Your task to perform on an android device: turn off notifications in google photos Image 0: 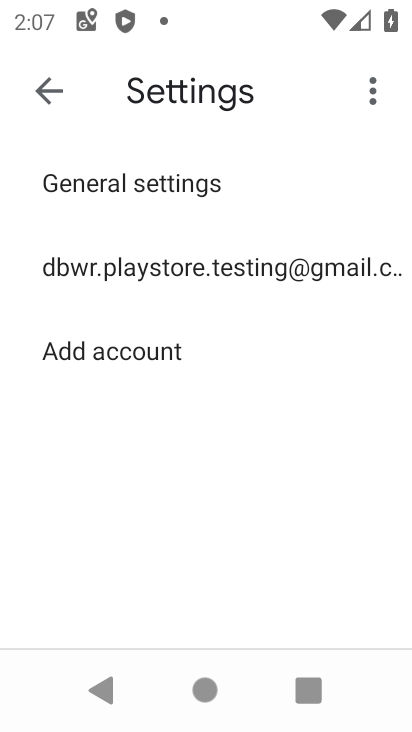
Step 0: click (239, 269)
Your task to perform on an android device: turn off notifications in google photos Image 1: 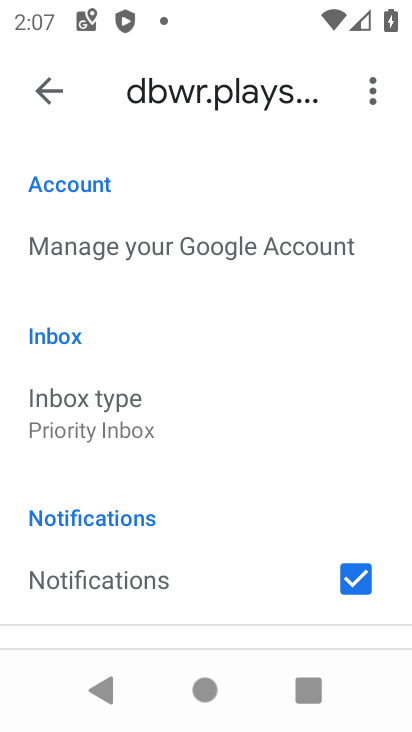
Step 1: drag from (152, 501) to (142, 245)
Your task to perform on an android device: turn off notifications in google photos Image 2: 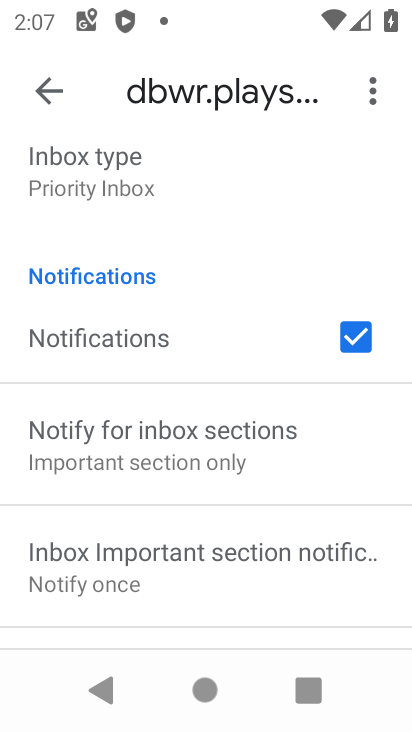
Step 2: click (349, 347)
Your task to perform on an android device: turn off notifications in google photos Image 3: 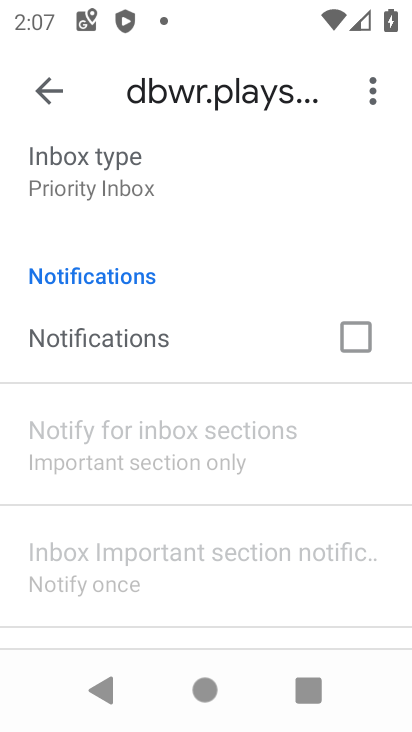
Step 3: task complete